Your task to perform on an android device: turn smart compose on in the gmail app Image 0: 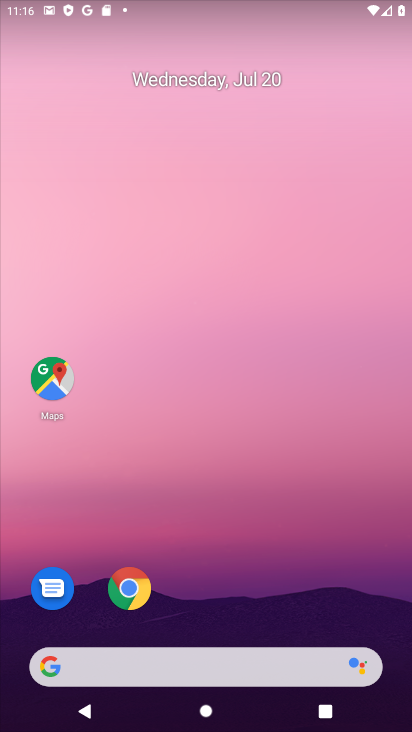
Step 0: drag from (171, 620) to (304, 125)
Your task to perform on an android device: turn smart compose on in the gmail app Image 1: 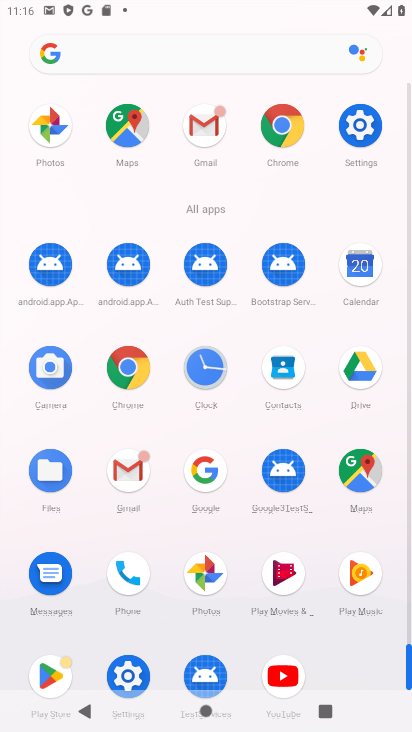
Step 1: click (141, 485)
Your task to perform on an android device: turn smart compose on in the gmail app Image 2: 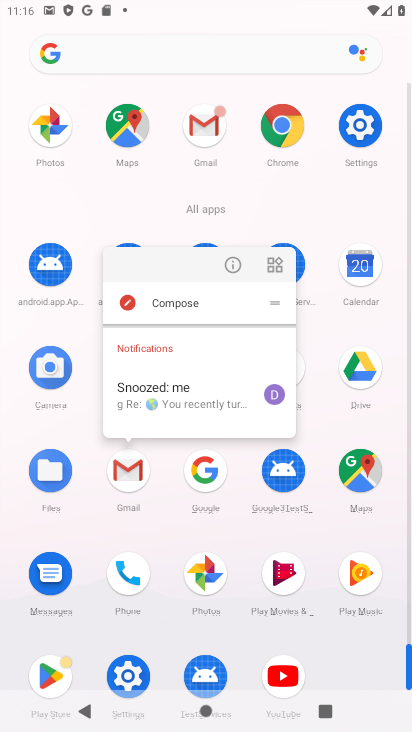
Step 2: click (236, 267)
Your task to perform on an android device: turn smart compose on in the gmail app Image 3: 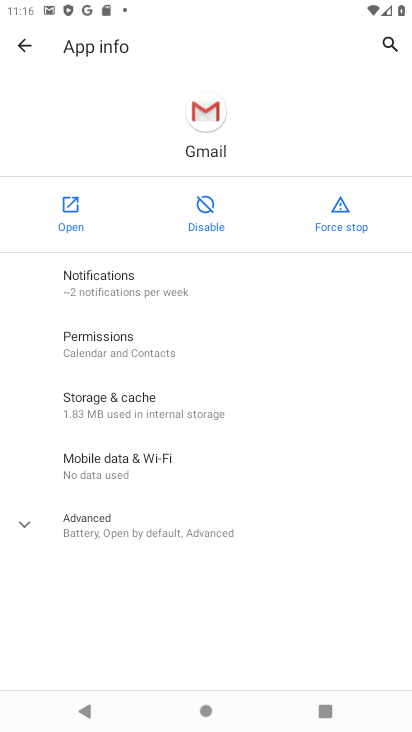
Step 3: click (81, 221)
Your task to perform on an android device: turn smart compose on in the gmail app Image 4: 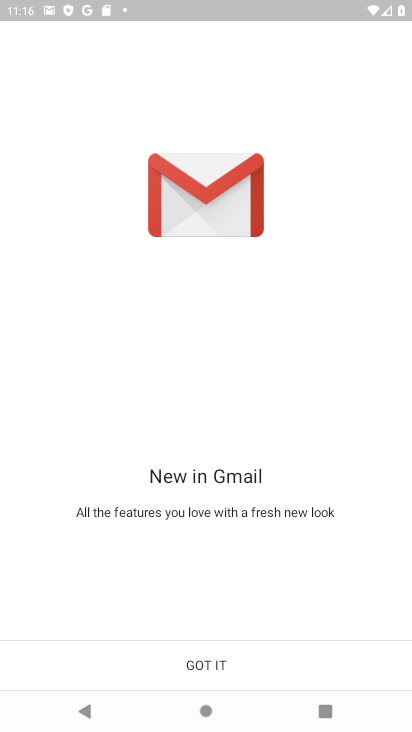
Step 4: click (196, 655)
Your task to perform on an android device: turn smart compose on in the gmail app Image 5: 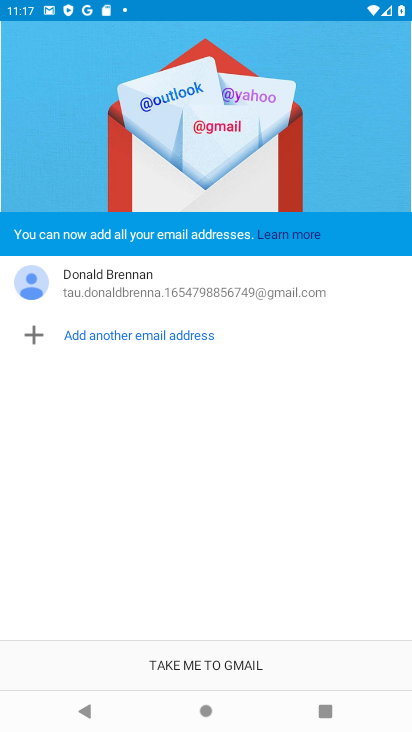
Step 5: click (133, 669)
Your task to perform on an android device: turn smart compose on in the gmail app Image 6: 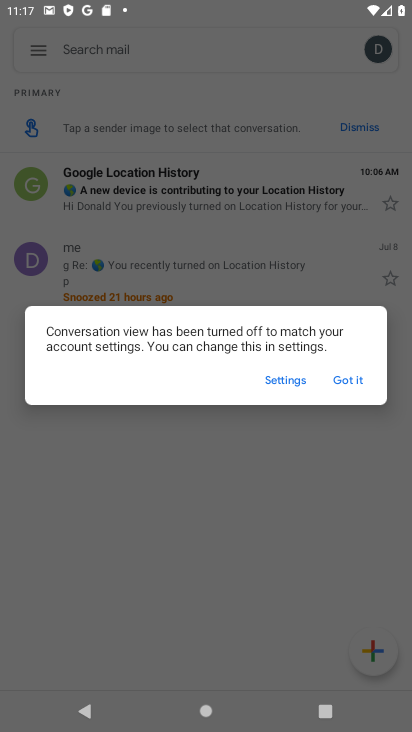
Step 6: click (352, 379)
Your task to perform on an android device: turn smart compose on in the gmail app Image 7: 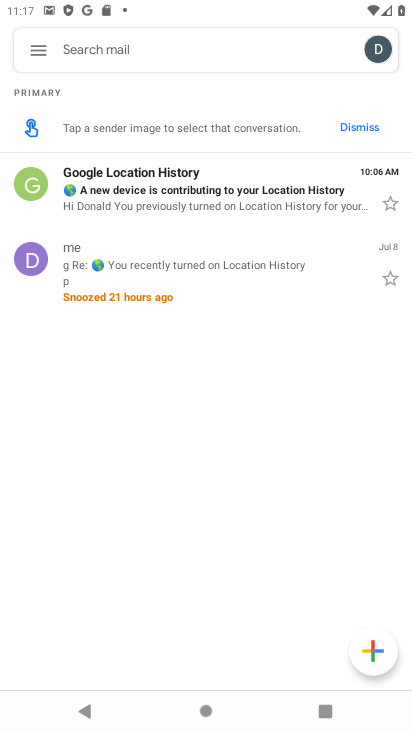
Step 7: click (47, 43)
Your task to perform on an android device: turn smart compose on in the gmail app Image 8: 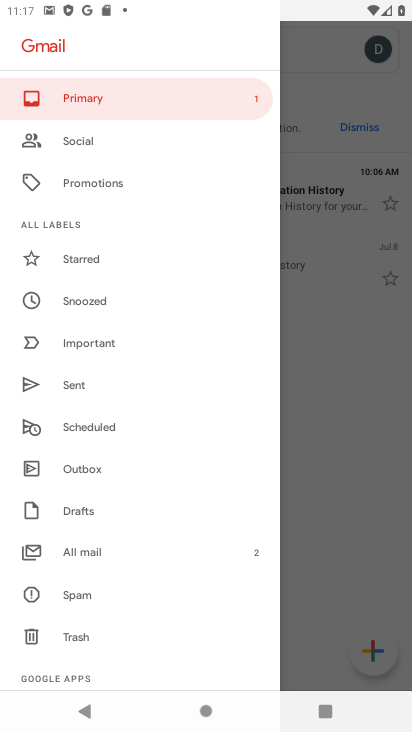
Step 8: drag from (88, 602) to (95, 53)
Your task to perform on an android device: turn smart compose on in the gmail app Image 9: 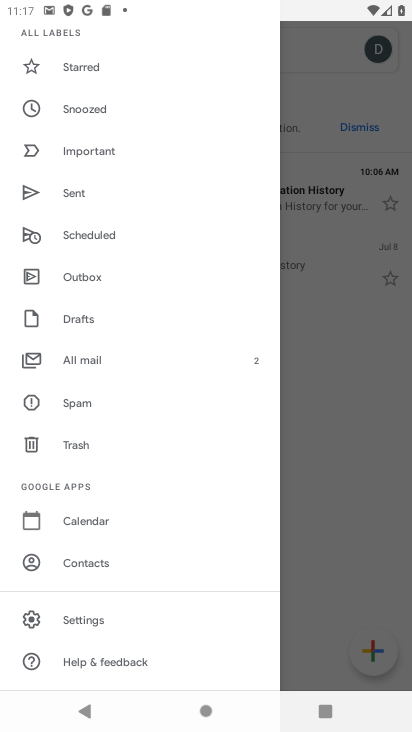
Step 9: click (107, 619)
Your task to perform on an android device: turn smart compose on in the gmail app Image 10: 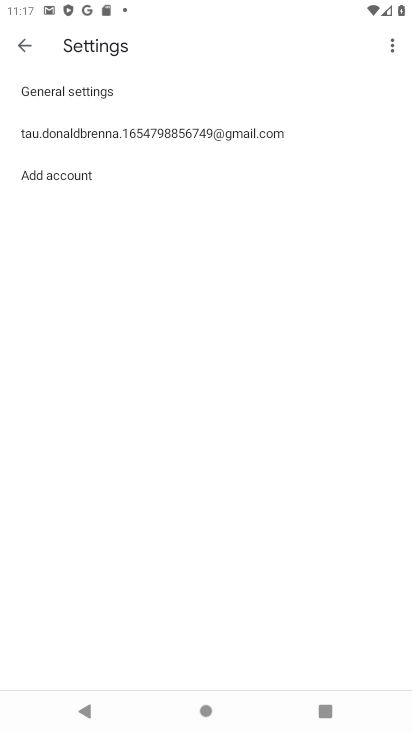
Step 10: click (97, 138)
Your task to perform on an android device: turn smart compose on in the gmail app Image 11: 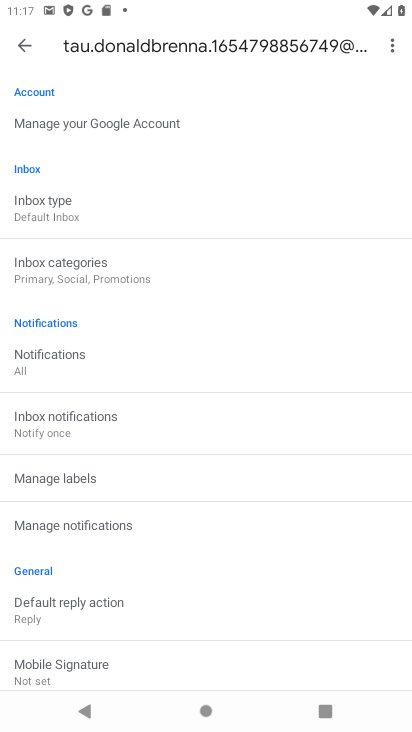
Step 11: task complete